Your task to perform on an android device: Open battery settings Image 0: 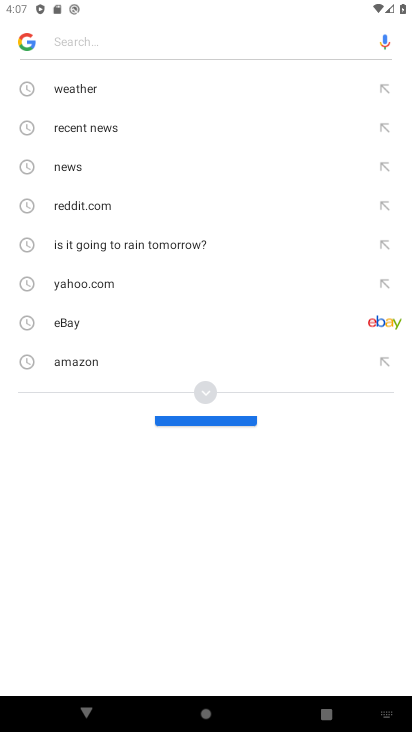
Step 0: press home button
Your task to perform on an android device: Open battery settings Image 1: 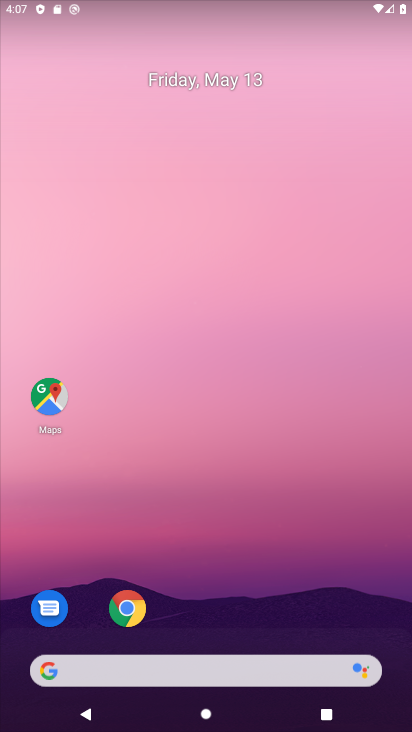
Step 1: drag from (224, 702) to (226, 235)
Your task to perform on an android device: Open battery settings Image 2: 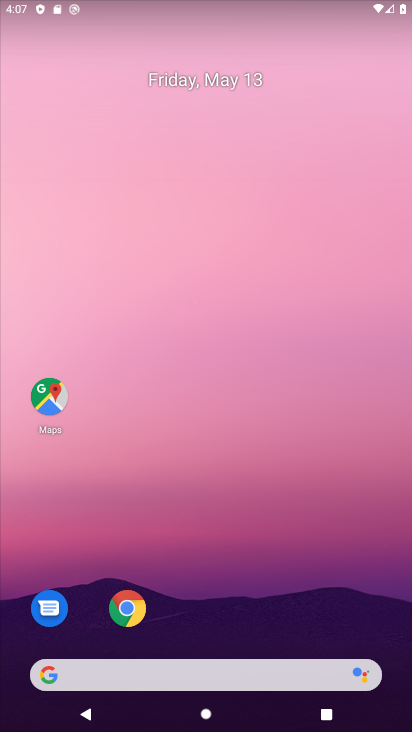
Step 2: drag from (232, 725) to (234, 215)
Your task to perform on an android device: Open battery settings Image 3: 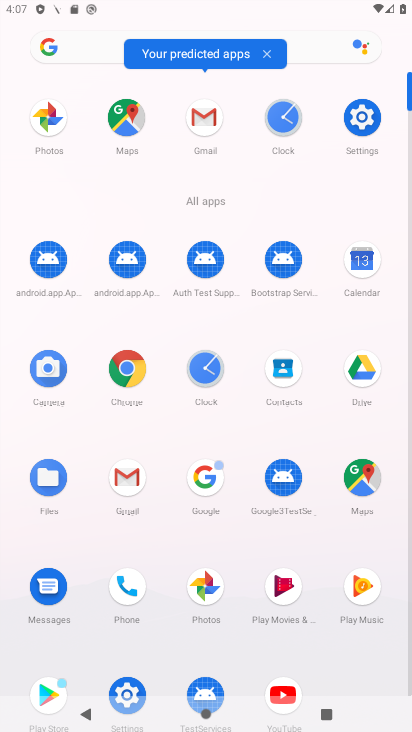
Step 3: click (361, 123)
Your task to perform on an android device: Open battery settings Image 4: 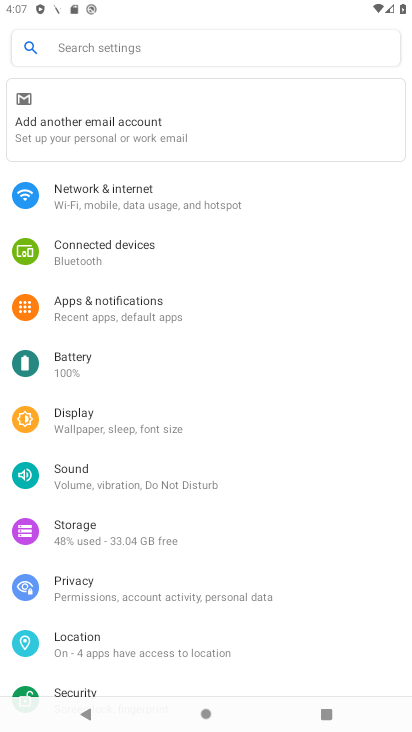
Step 4: click (73, 365)
Your task to perform on an android device: Open battery settings Image 5: 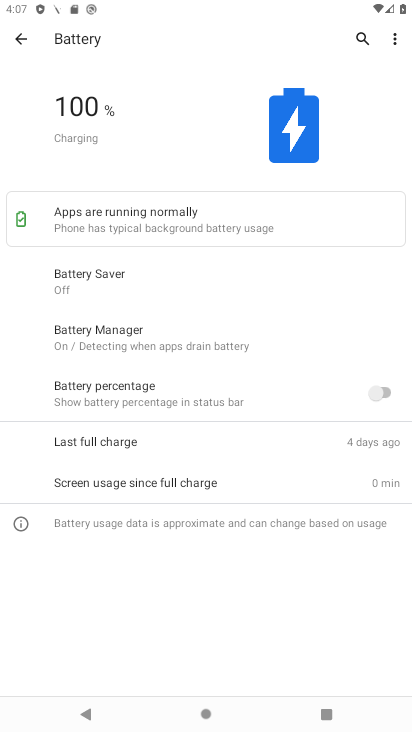
Step 5: task complete